Your task to perform on an android device: see creations saved in the google photos Image 0: 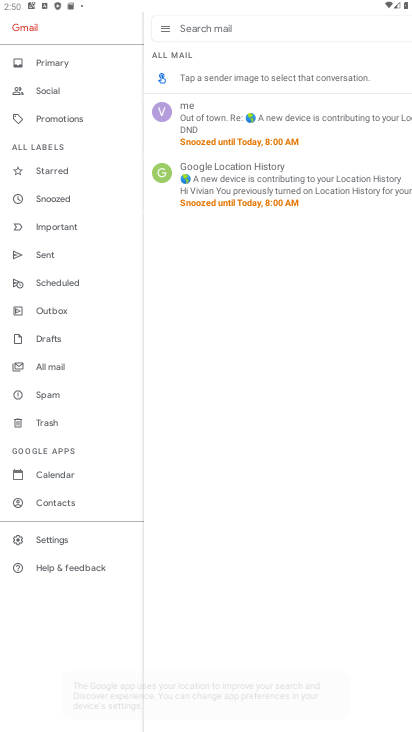
Step 0: press home button
Your task to perform on an android device: see creations saved in the google photos Image 1: 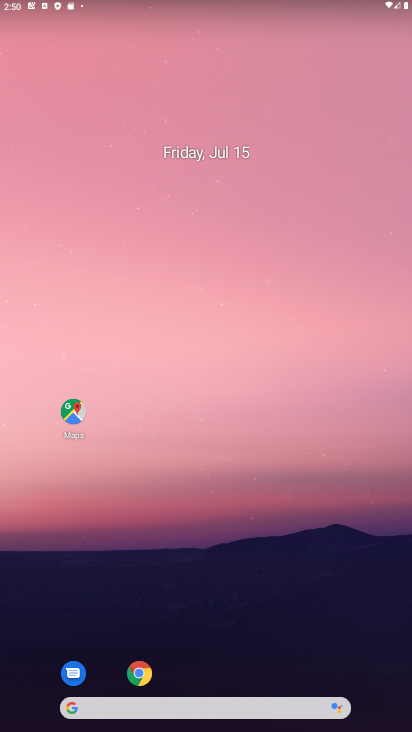
Step 1: drag from (363, 661) to (320, 112)
Your task to perform on an android device: see creations saved in the google photos Image 2: 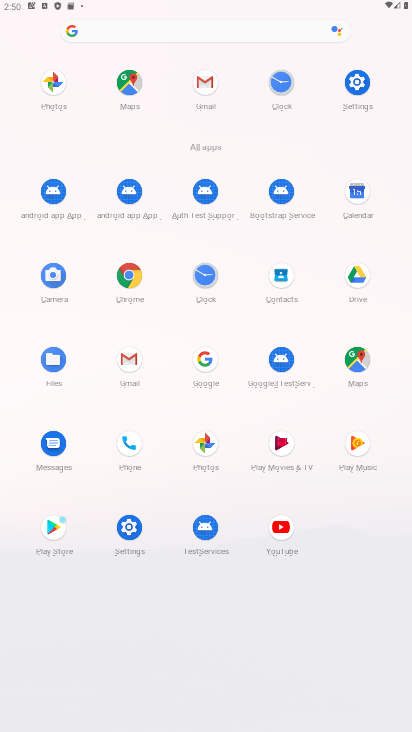
Step 2: click (205, 442)
Your task to perform on an android device: see creations saved in the google photos Image 3: 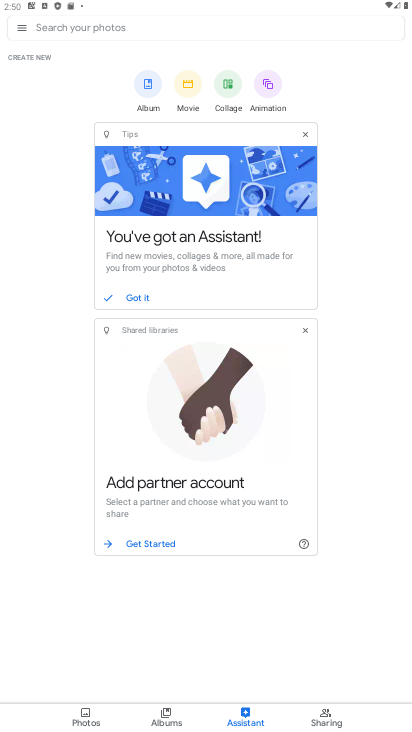
Step 3: click (77, 713)
Your task to perform on an android device: see creations saved in the google photos Image 4: 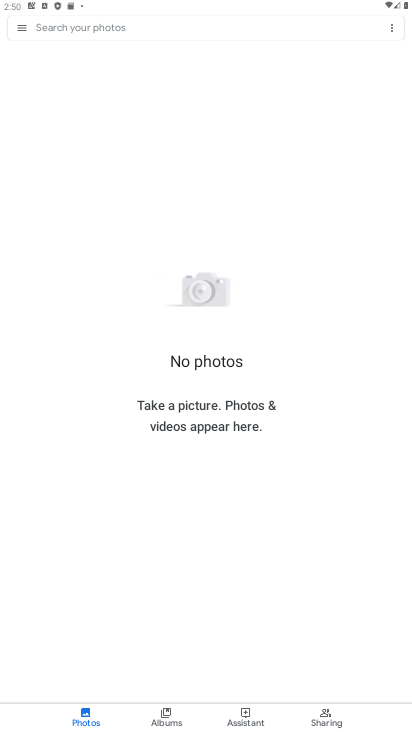
Step 4: task complete